Your task to perform on an android device: check the backup settings in the google photos Image 0: 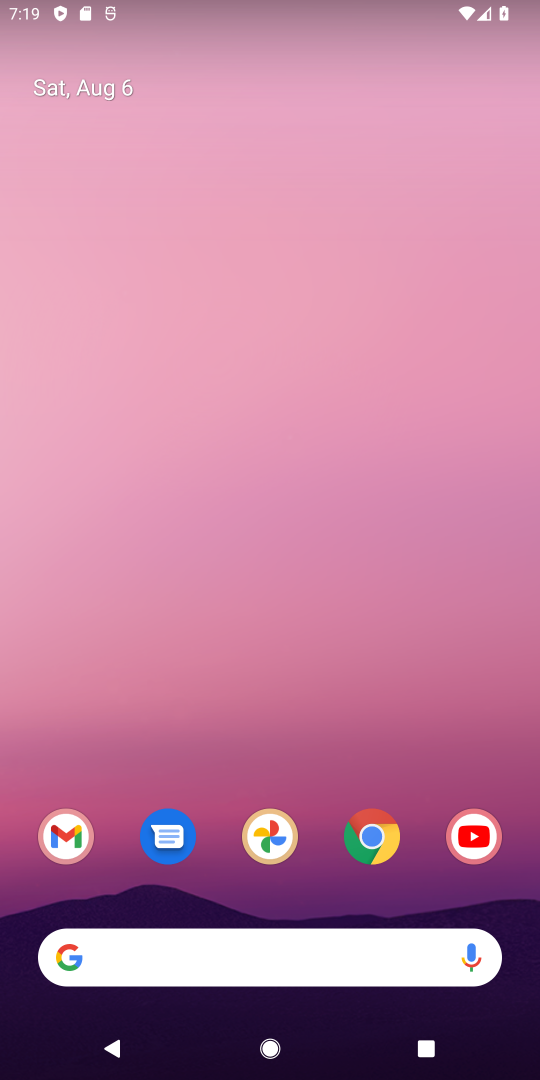
Step 0: click (271, 848)
Your task to perform on an android device: check the backup settings in the google photos Image 1: 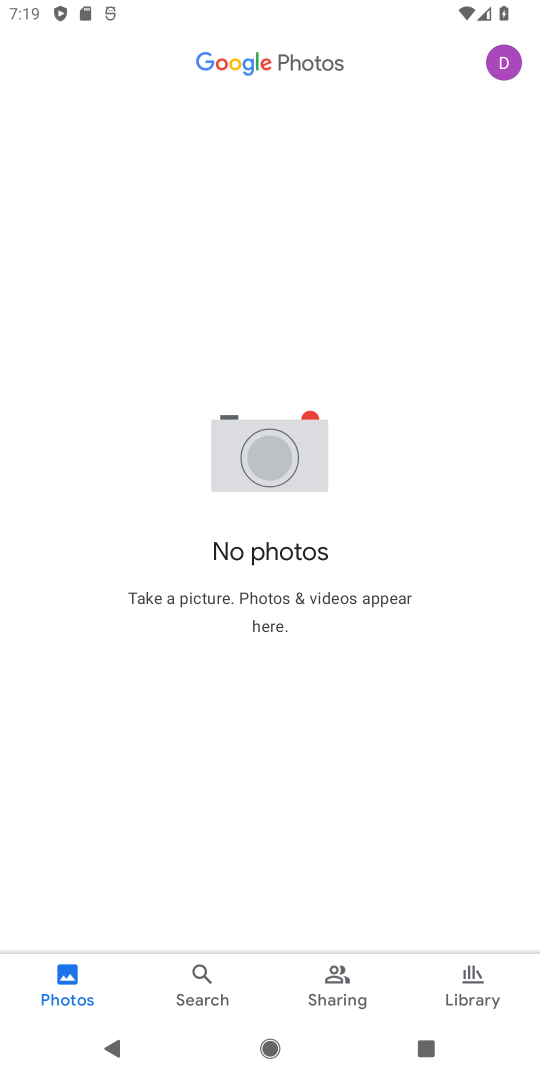
Step 1: click (512, 77)
Your task to perform on an android device: check the backup settings in the google photos Image 2: 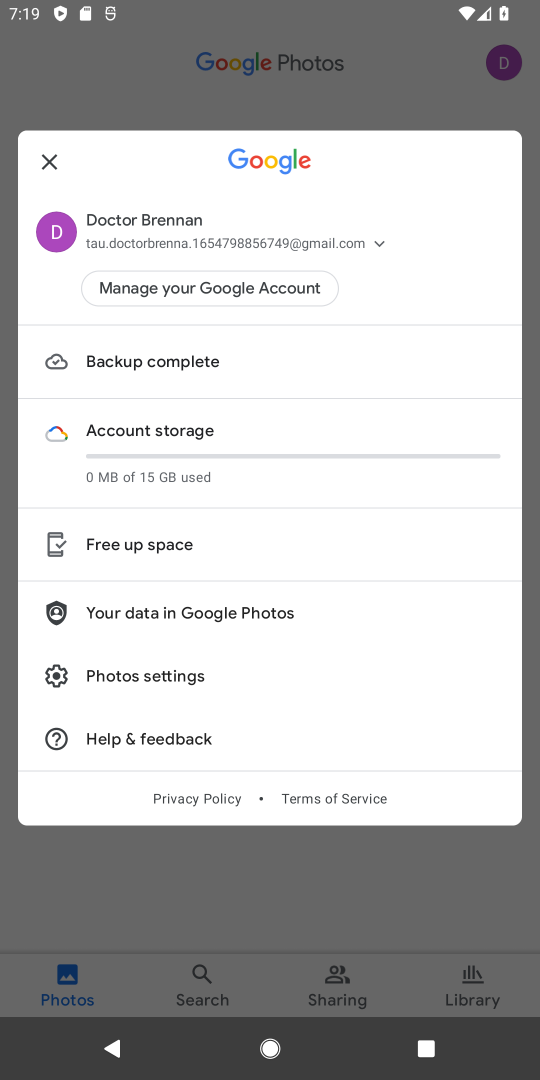
Step 2: click (200, 358)
Your task to perform on an android device: check the backup settings in the google photos Image 3: 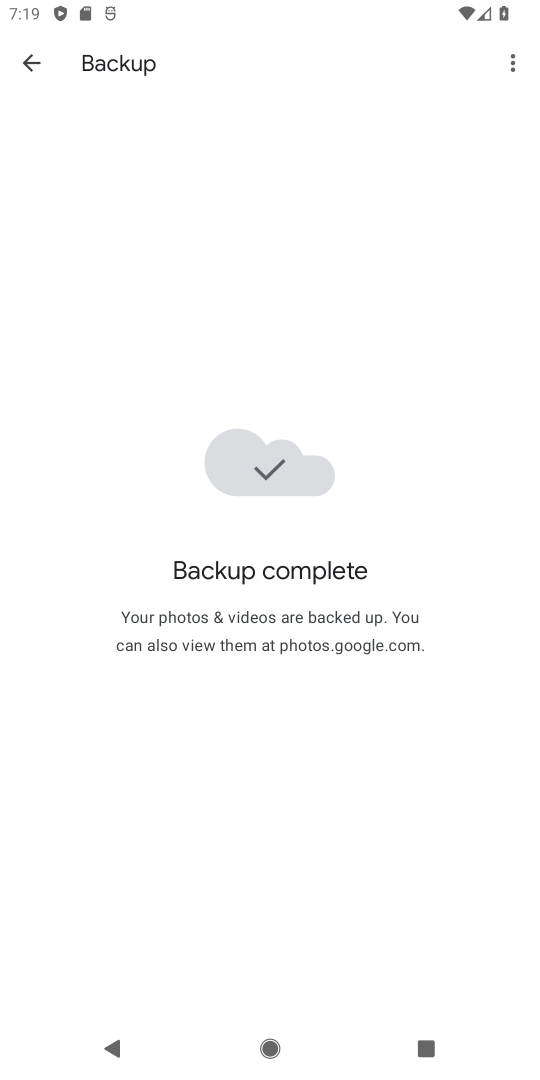
Step 3: click (32, 74)
Your task to perform on an android device: check the backup settings in the google photos Image 4: 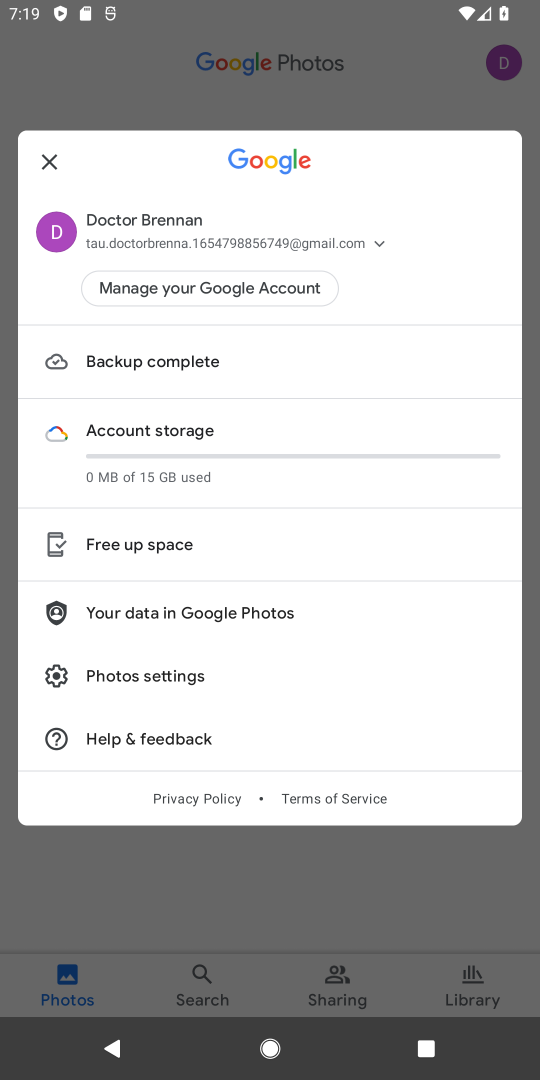
Step 4: click (154, 665)
Your task to perform on an android device: check the backup settings in the google photos Image 5: 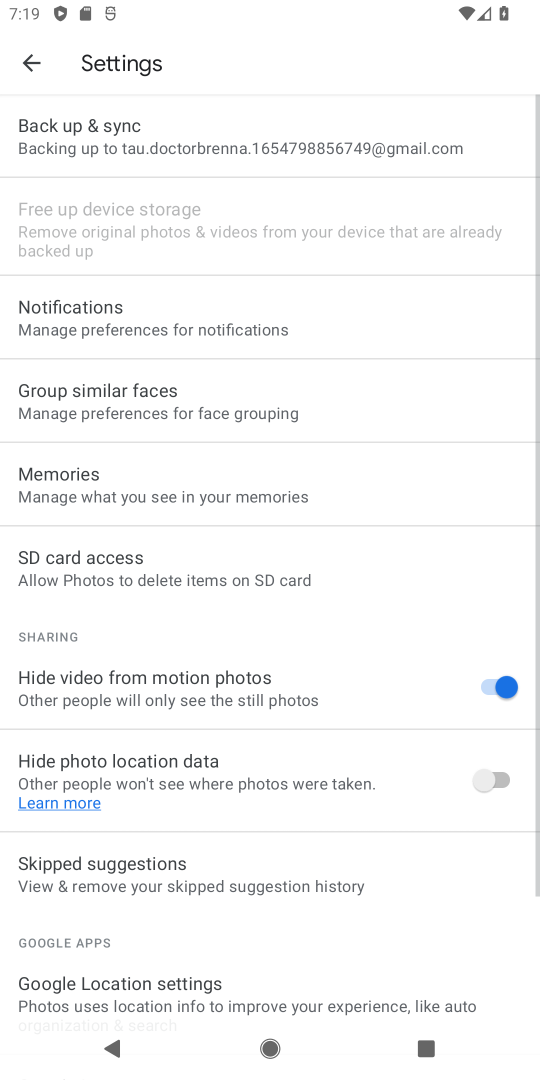
Step 5: click (238, 142)
Your task to perform on an android device: check the backup settings in the google photos Image 6: 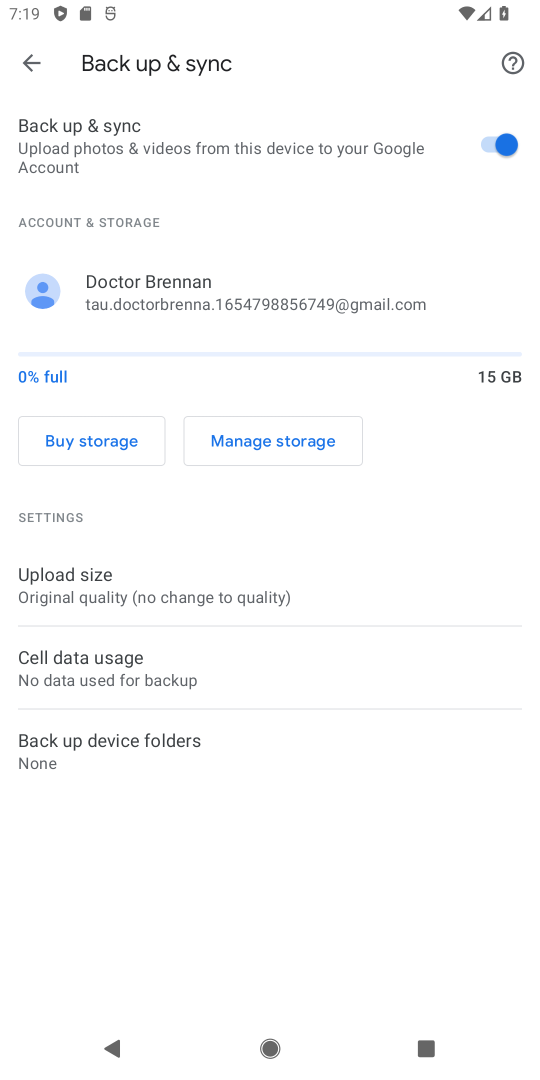
Step 6: task complete